Your task to perform on an android device: check out phone information Image 0: 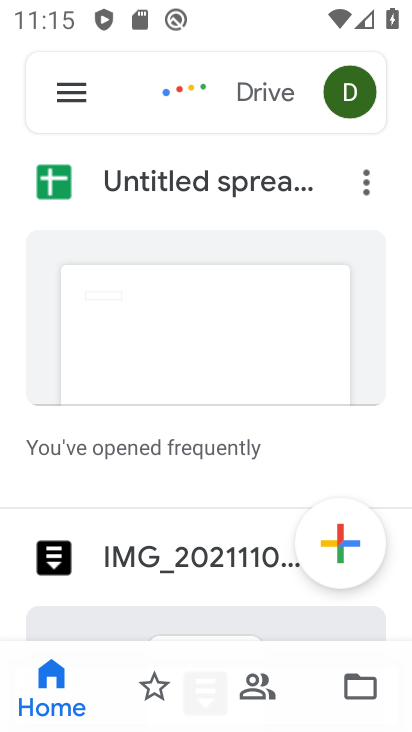
Step 0: press home button
Your task to perform on an android device: check out phone information Image 1: 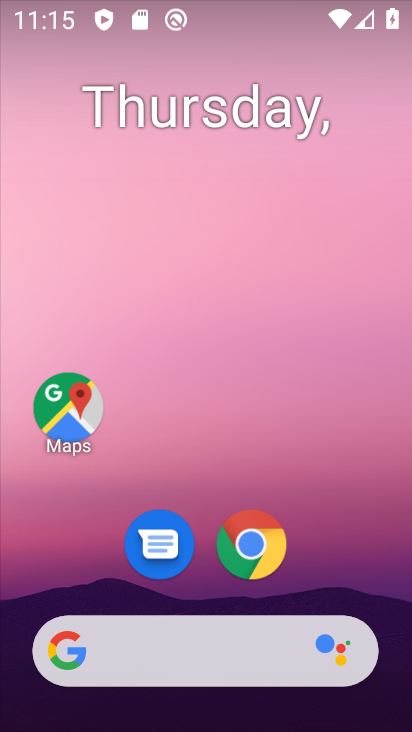
Step 1: drag from (156, 559) to (275, 4)
Your task to perform on an android device: check out phone information Image 2: 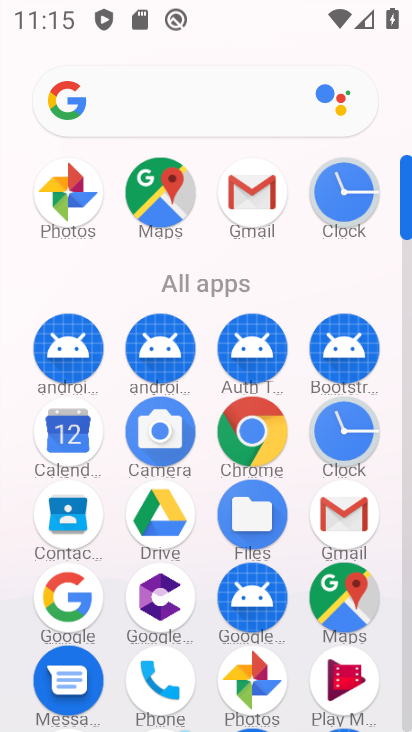
Step 2: drag from (197, 561) to (188, 91)
Your task to perform on an android device: check out phone information Image 3: 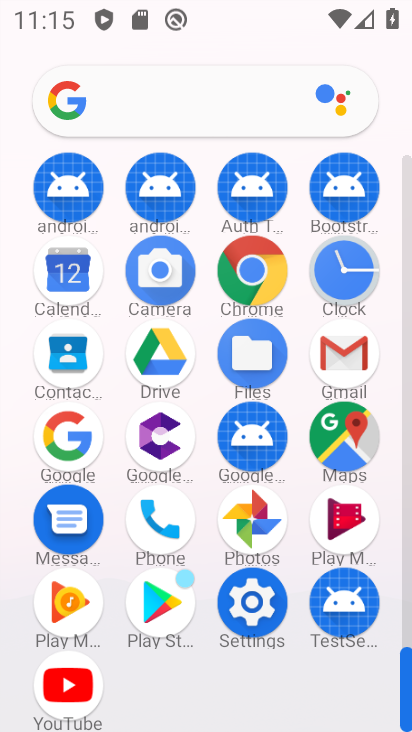
Step 3: click (273, 595)
Your task to perform on an android device: check out phone information Image 4: 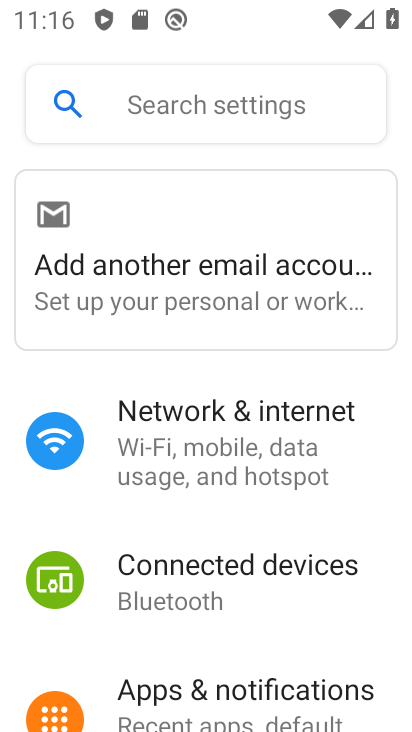
Step 4: task complete